Your task to perform on an android device: Search for a runner rug on Crate & Barrel Image 0: 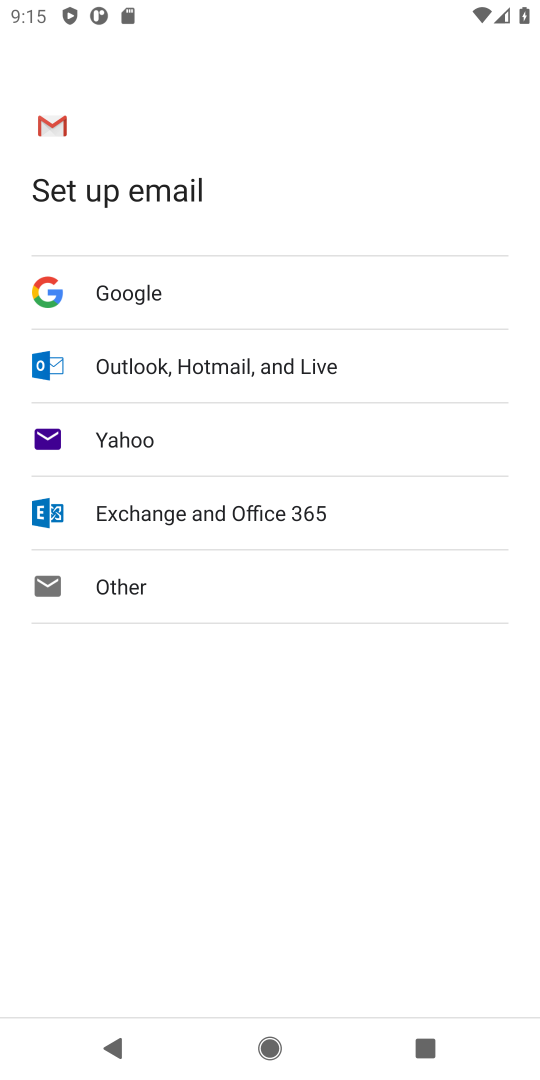
Step 0: press home button
Your task to perform on an android device: Search for a runner rug on Crate & Barrel Image 1: 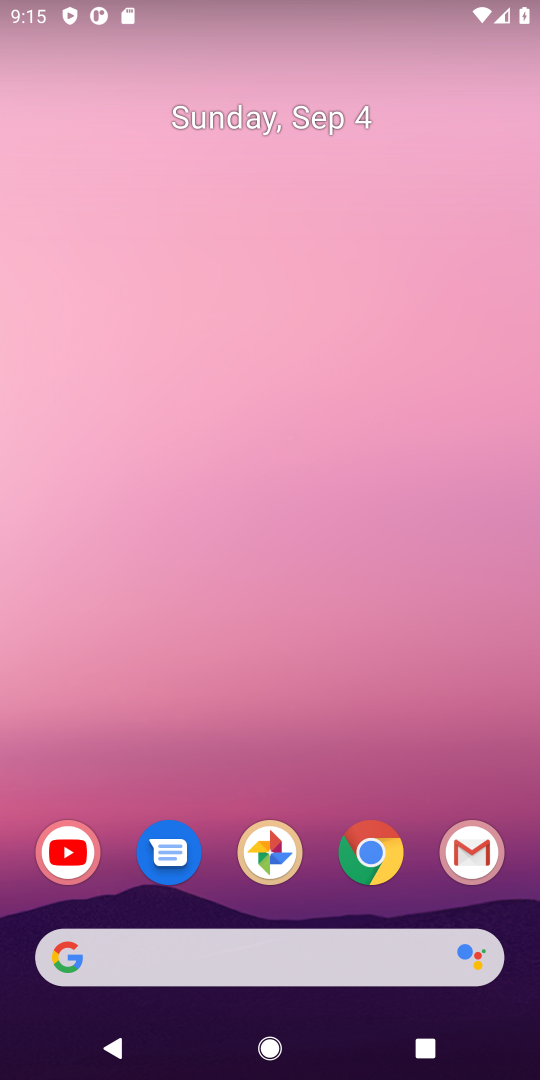
Step 1: drag from (453, 802) to (310, 123)
Your task to perform on an android device: Search for a runner rug on Crate & Barrel Image 2: 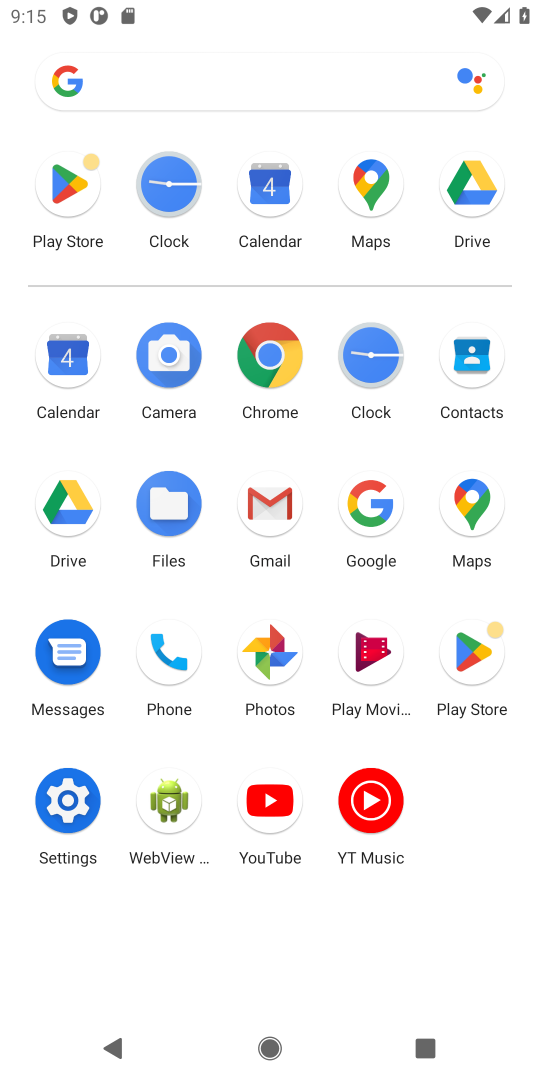
Step 2: click (143, 662)
Your task to perform on an android device: Search for a runner rug on Crate & Barrel Image 3: 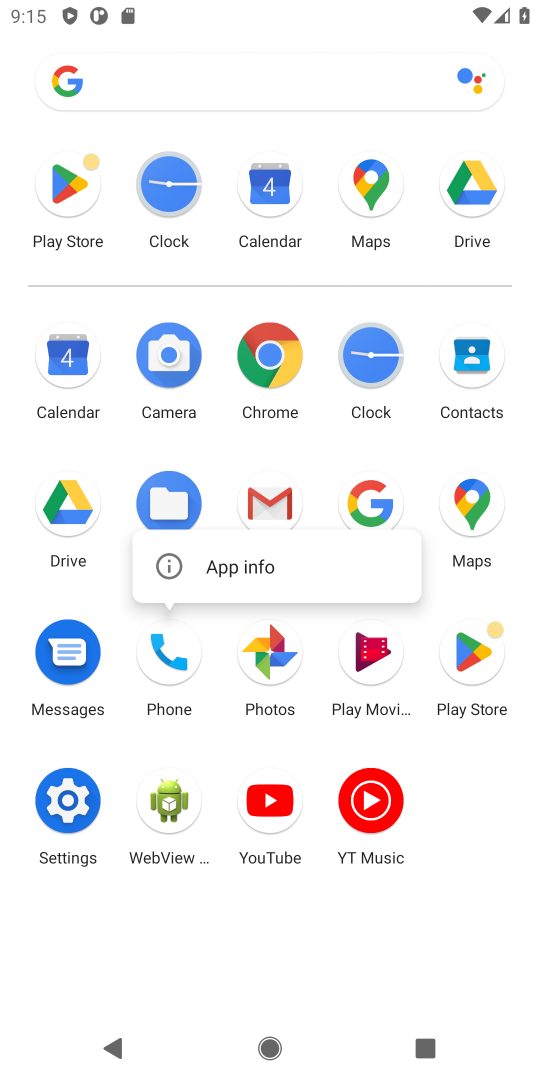
Step 3: click (355, 498)
Your task to perform on an android device: Search for a runner rug on Crate & Barrel Image 4: 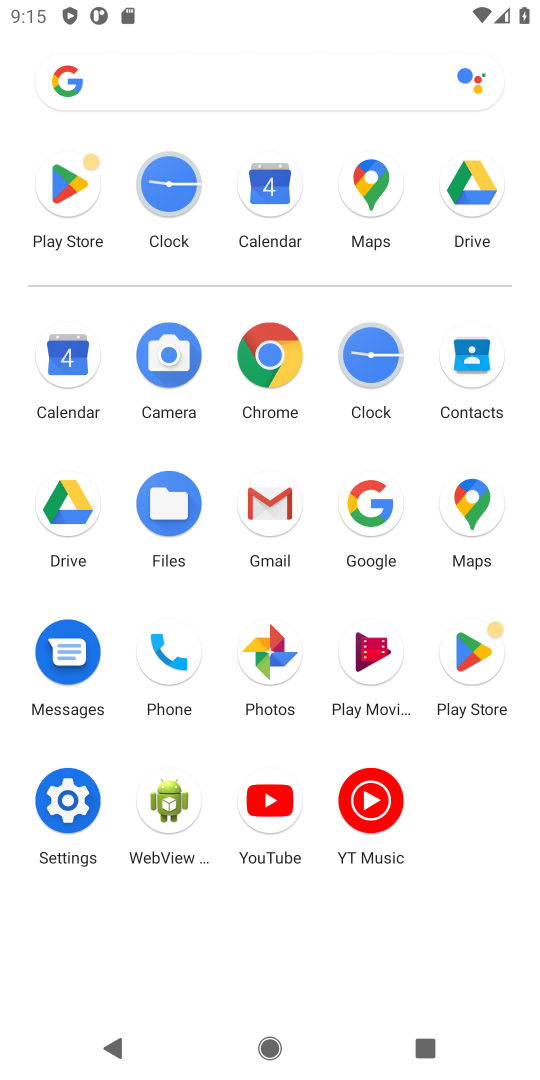
Step 4: click (355, 498)
Your task to perform on an android device: Search for a runner rug on Crate & Barrel Image 5: 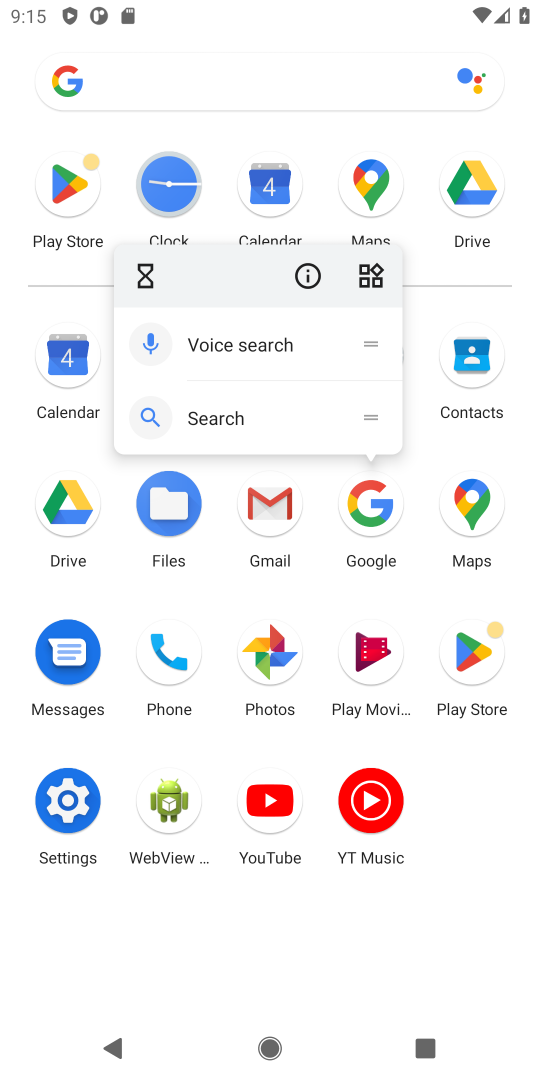
Step 5: click (355, 498)
Your task to perform on an android device: Search for a runner rug on Crate & Barrel Image 6: 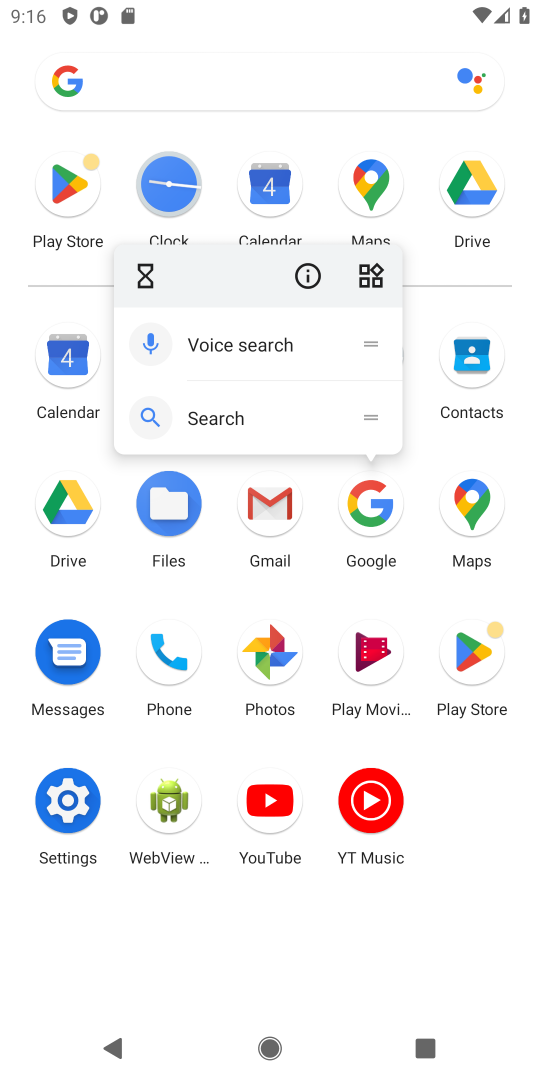
Step 6: click (355, 498)
Your task to perform on an android device: Search for a runner rug on Crate & Barrel Image 7: 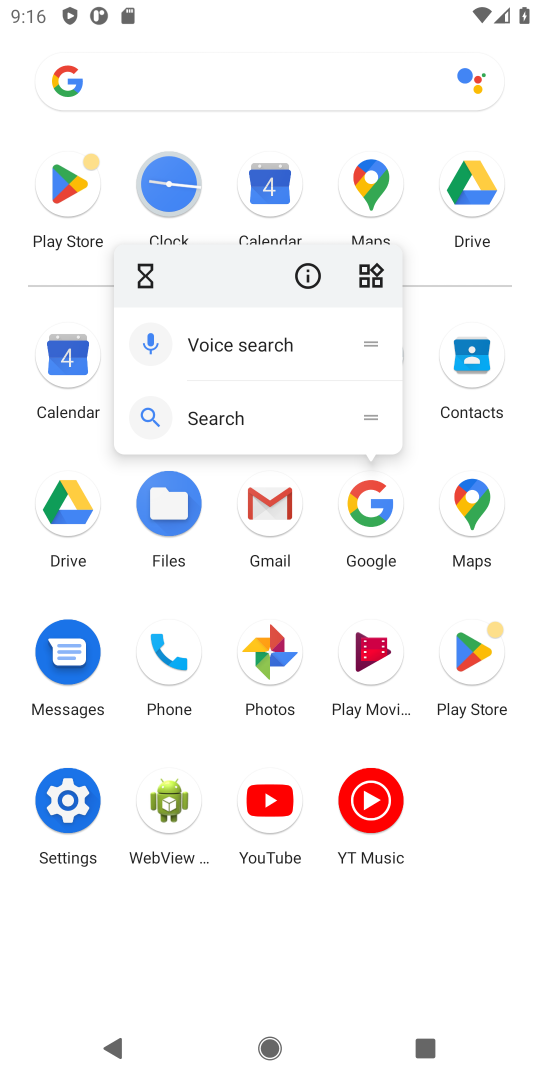
Step 7: click (355, 498)
Your task to perform on an android device: Search for a runner rug on Crate & Barrel Image 8: 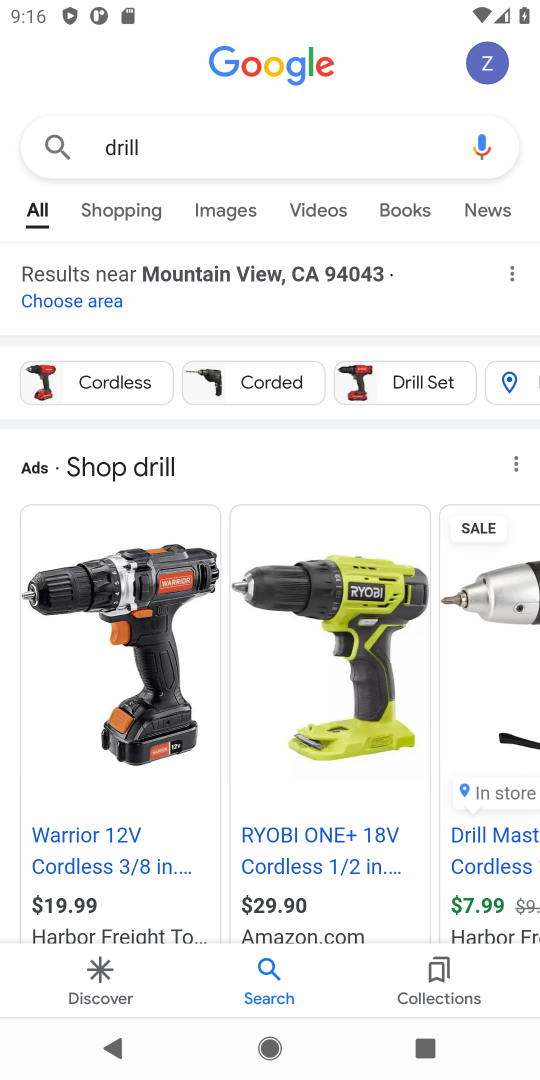
Step 8: press back button
Your task to perform on an android device: Search for a runner rug on Crate & Barrel Image 9: 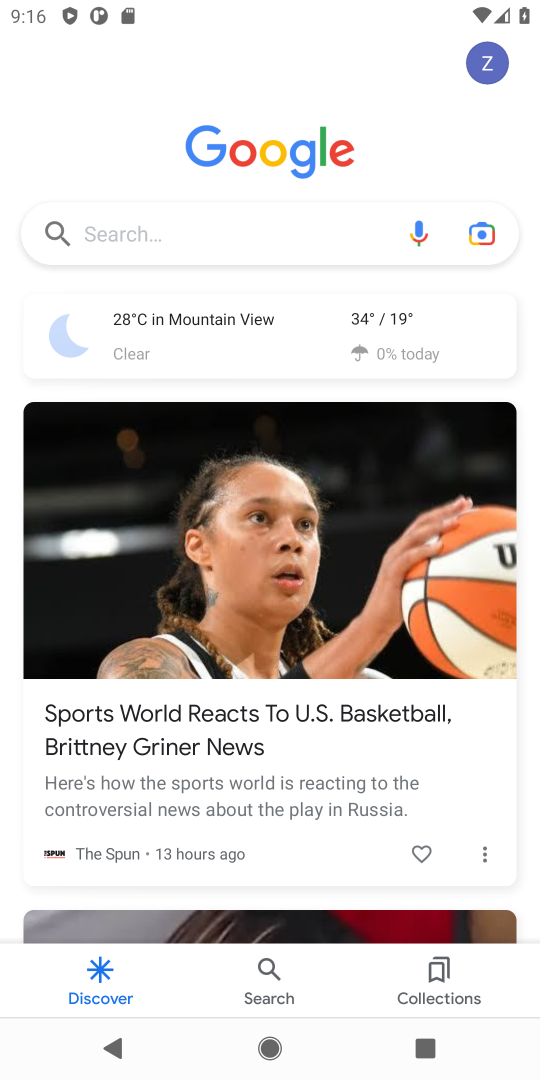
Step 9: click (127, 235)
Your task to perform on an android device: Search for a runner rug on Crate & Barrel Image 10: 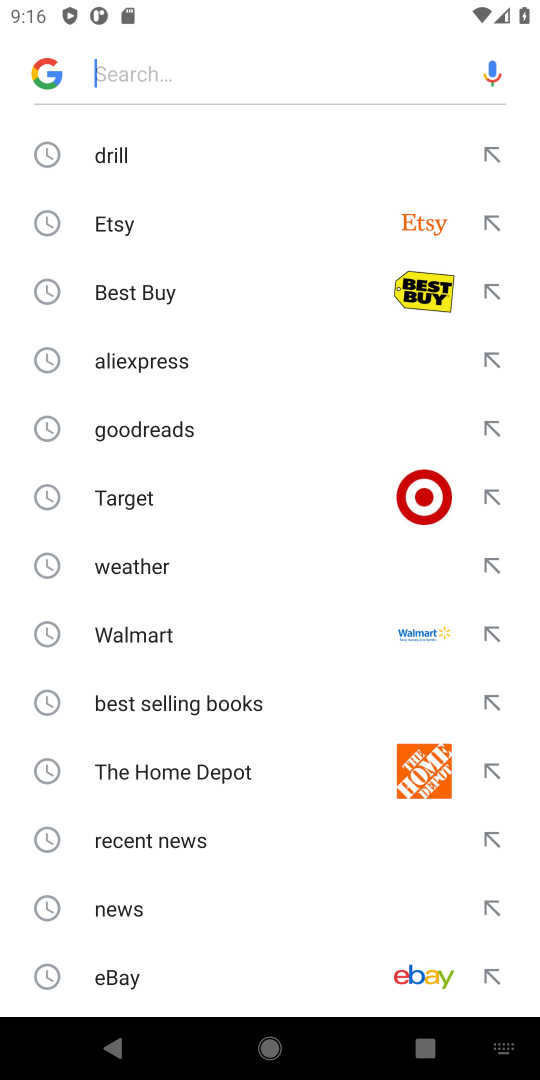
Step 10: type "Crate & Barrel"
Your task to perform on an android device: Search for a runner rug on Crate & Barrel Image 11: 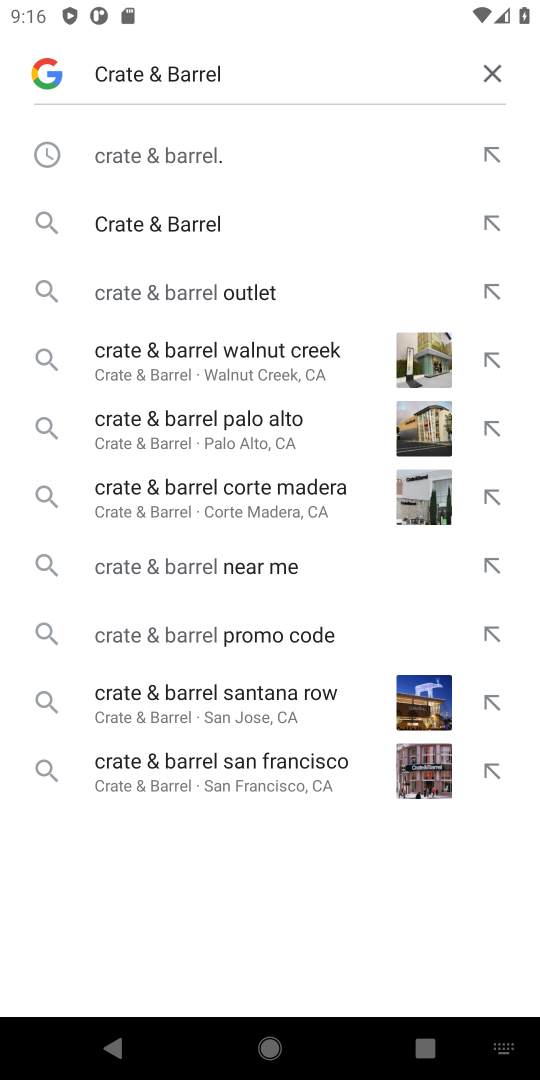
Step 11: click (197, 153)
Your task to perform on an android device: Search for a runner rug on Crate & Barrel Image 12: 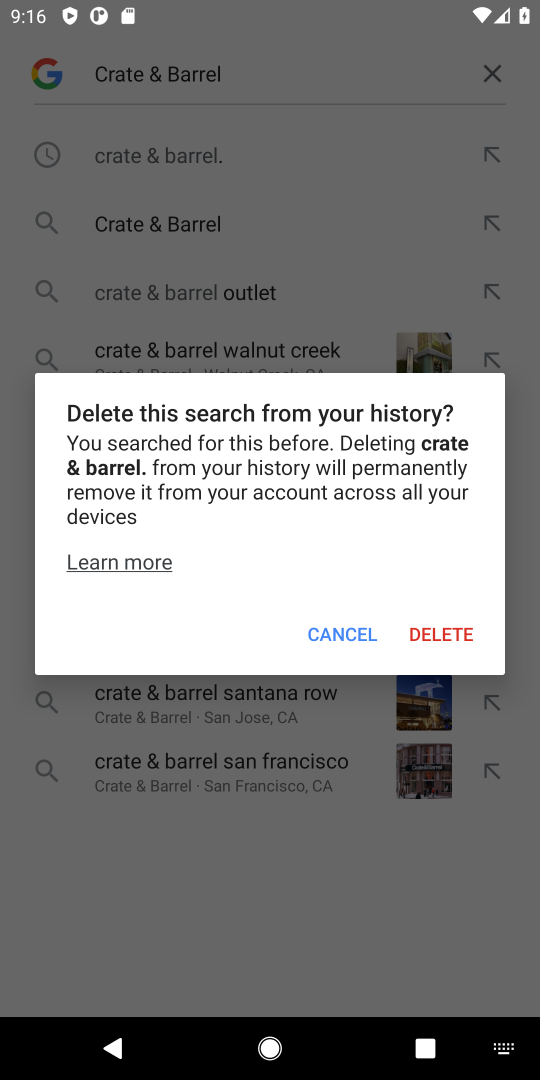
Step 12: click (346, 637)
Your task to perform on an android device: Search for a runner rug on Crate & Barrel Image 13: 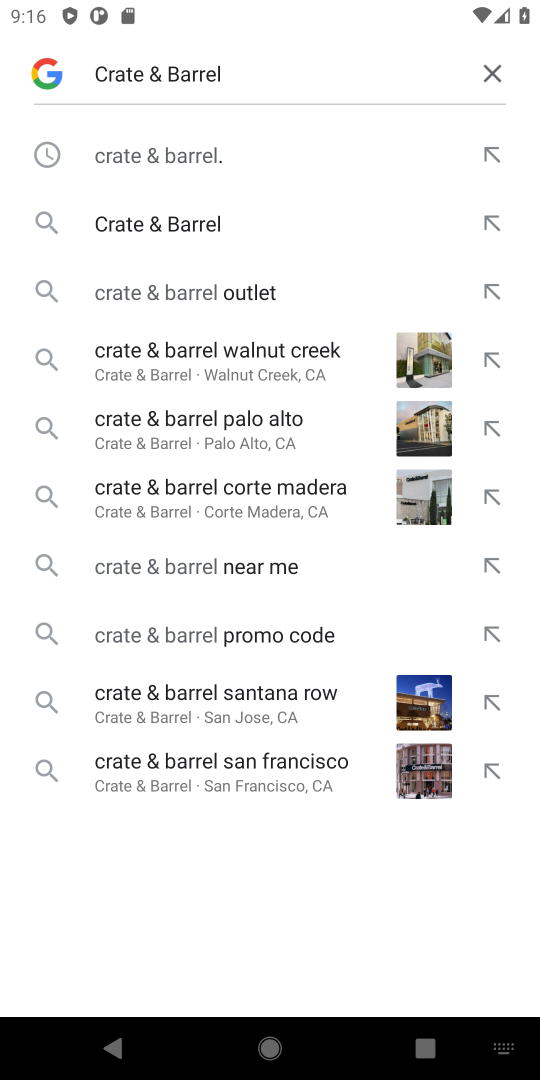
Step 13: click (171, 222)
Your task to perform on an android device: Search for a runner rug on Crate & Barrel Image 14: 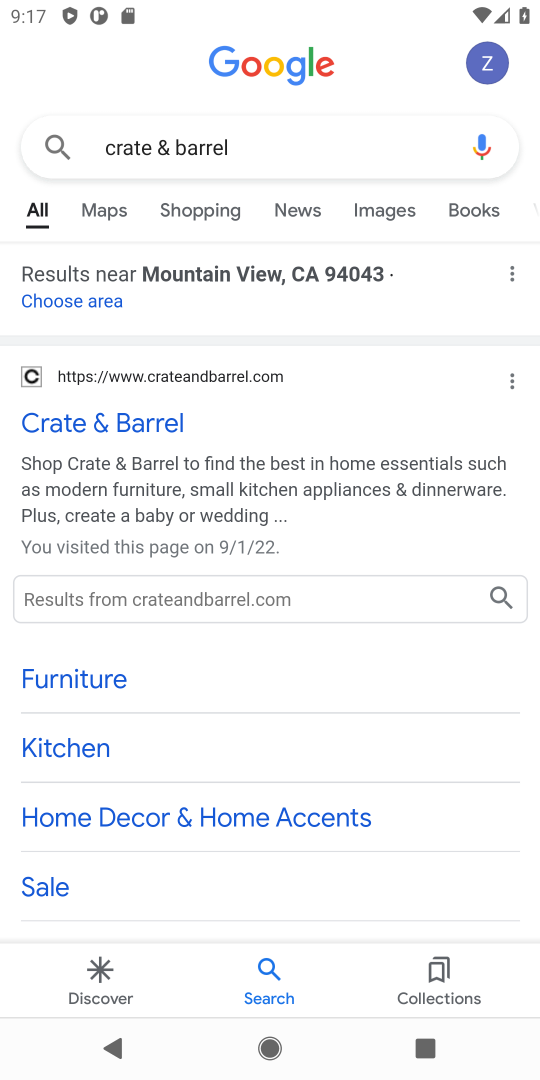
Step 14: click (149, 420)
Your task to perform on an android device: Search for a runner rug on Crate & Barrel Image 15: 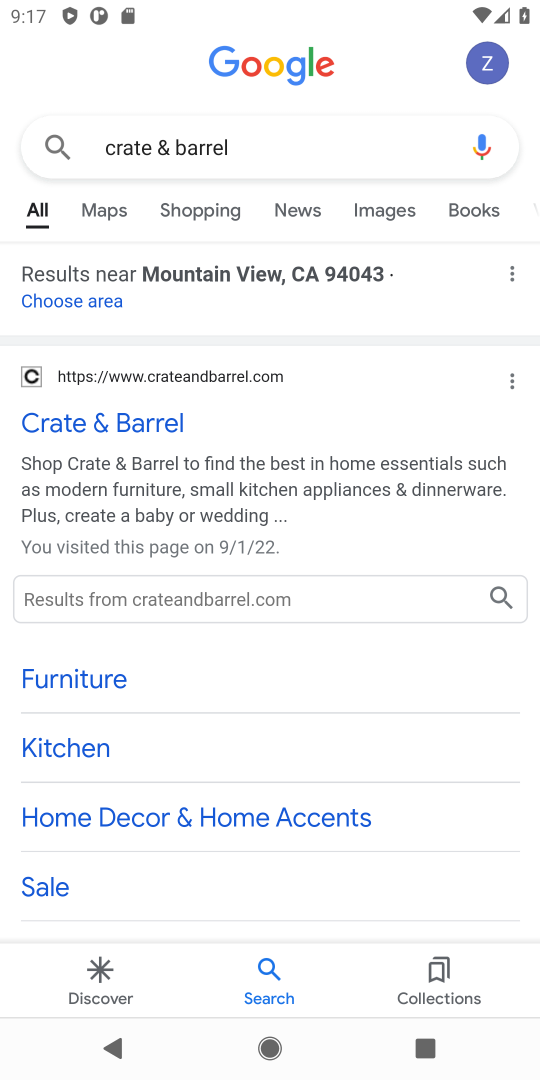
Step 15: click (147, 421)
Your task to perform on an android device: Search for a runner rug on Crate & Barrel Image 16: 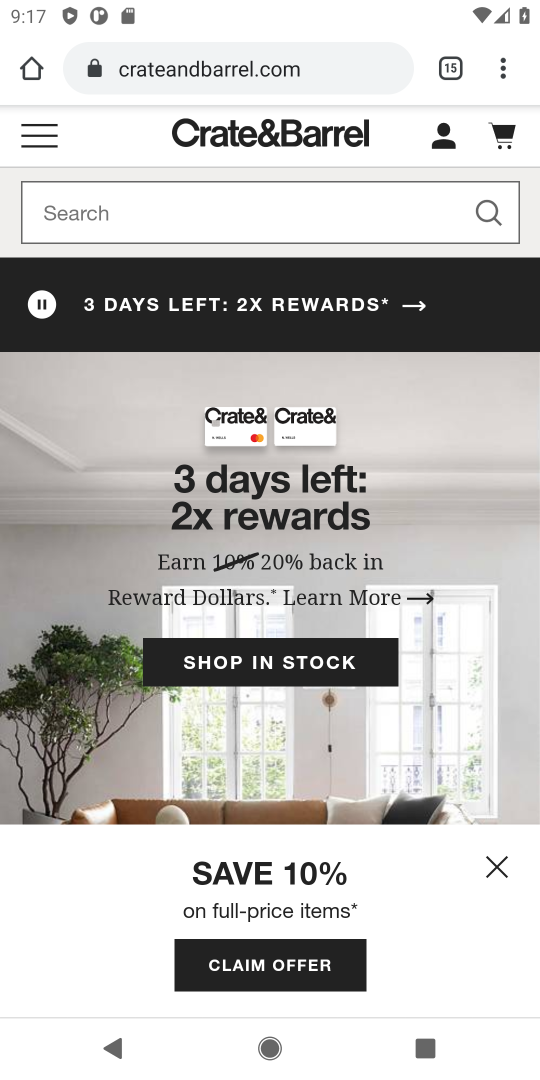
Step 16: click (214, 218)
Your task to perform on an android device: Search for a runner rug on Crate & Barrel Image 17: 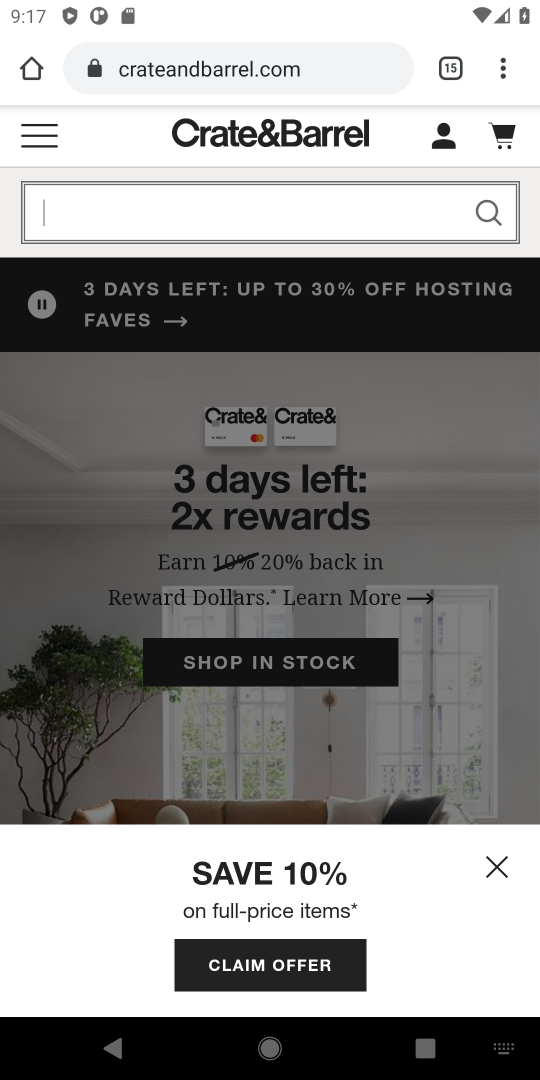
Step 17: type "runner rug"
Your task to perform on an android device: Search for a runner rug on Crate & Barrel Image 18: 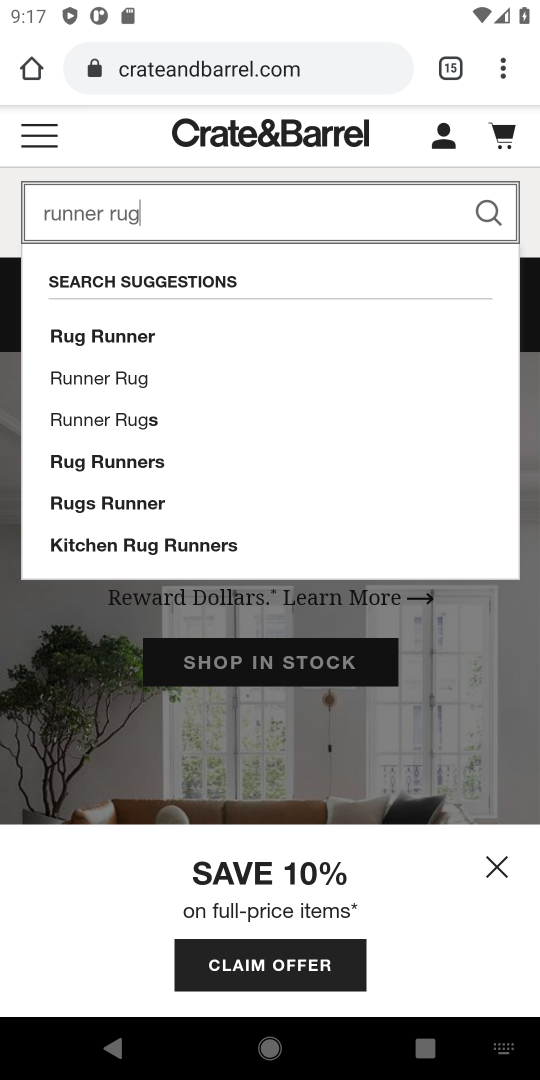
Step 18: click (501, 211)
Your task to perform on an android device: Search for a runner rug on Crate & Barrel Image 19: 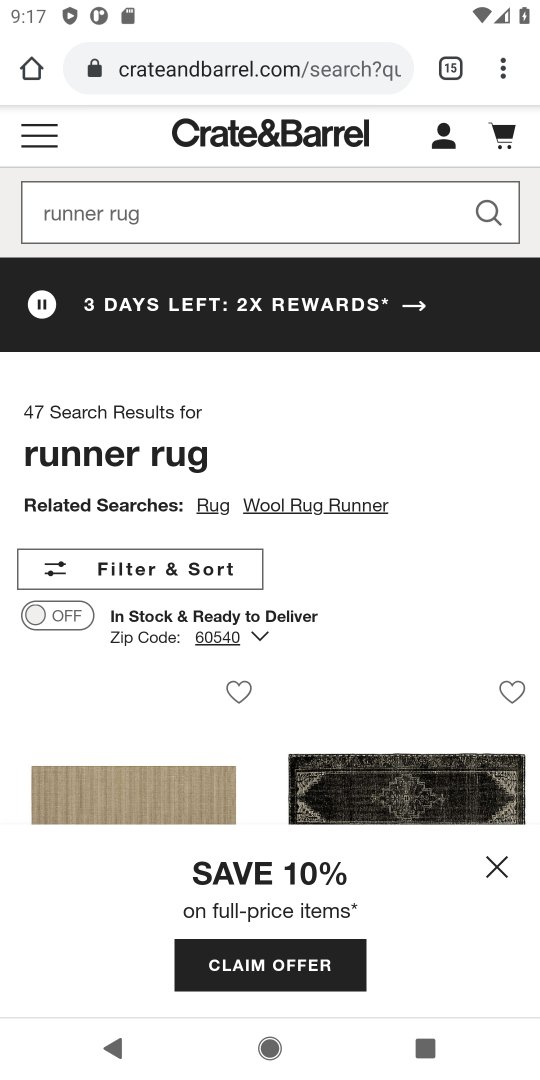
Step 19: task complete